Your task to perform on an android device: move an email to a new category in the gmail app Image 0: 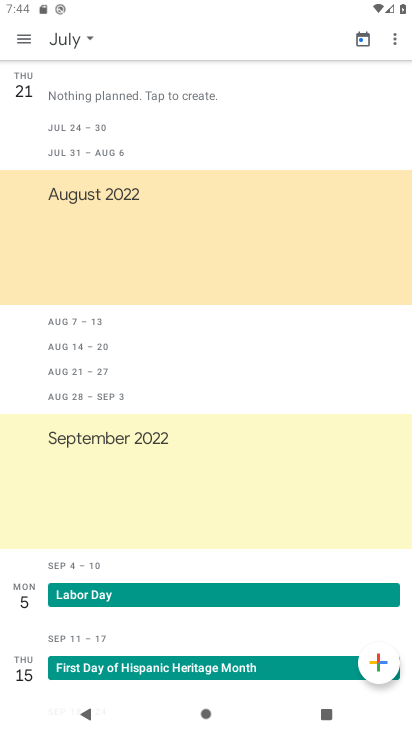
Step 0: press home button
Your task to perform on an android device: move an email to a new category in the gmail app Image 1: 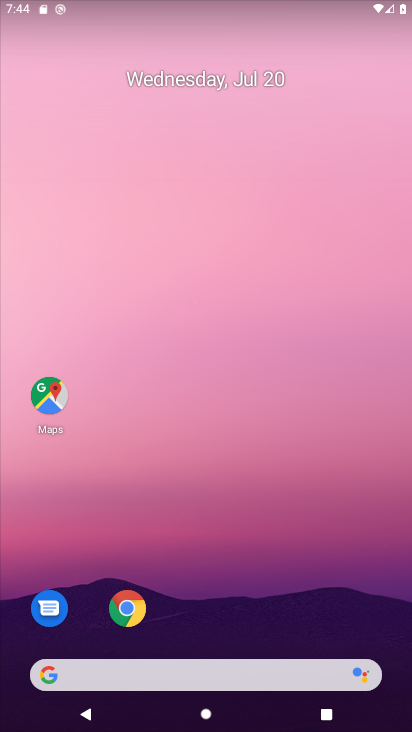
Step 1: drag from (258, 631) to (247, 173)
Your task to perform on an android device: move an email to a new category in the gmail app Image 2: 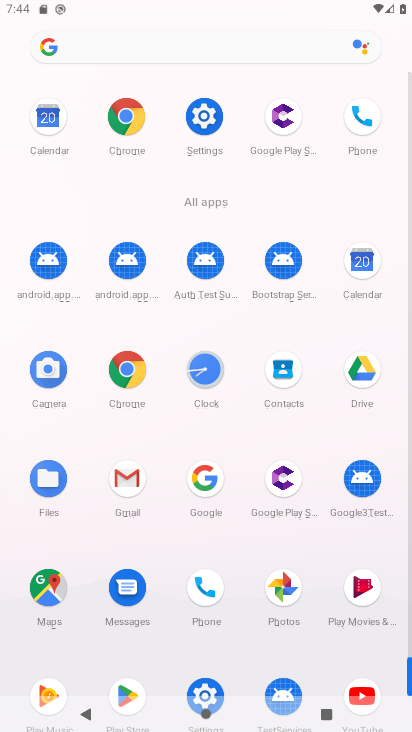
Step 2: click (113, 461)
Your task to perform on an android device: move an email to a new category in the gmail app Image 3: 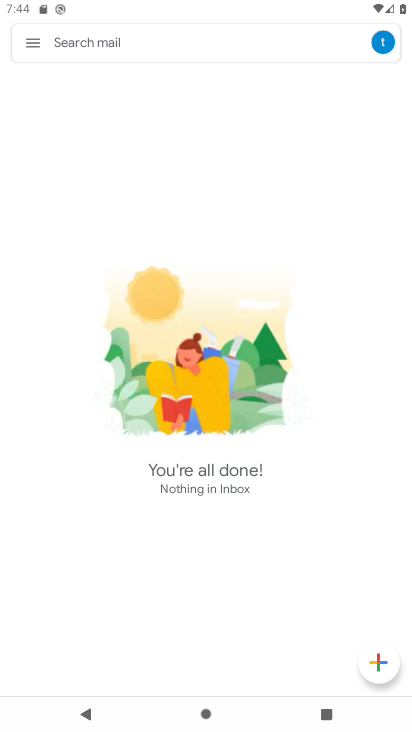
Step 3: click (35, 40)
Your task to perform on an android device: move an email to a new category in the gmail app Image 4: 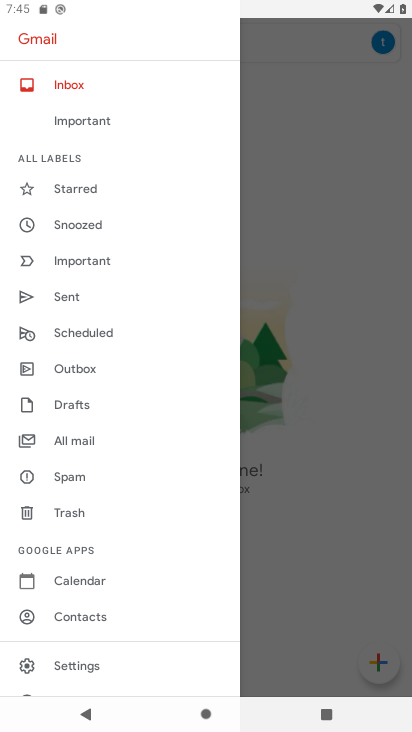
Step 4: click (89, 439)
Your task to perform on an android device: move an email to a new category in the gmail app Image 5: 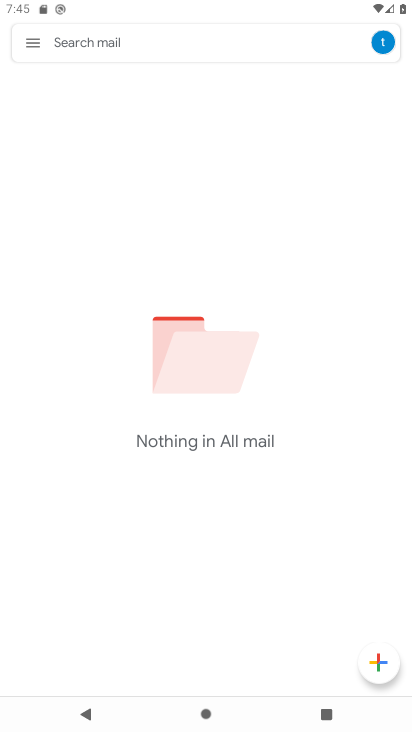
Step 5: task complete